Your task to perform on an android device: Open Yahoo.com Image 0: 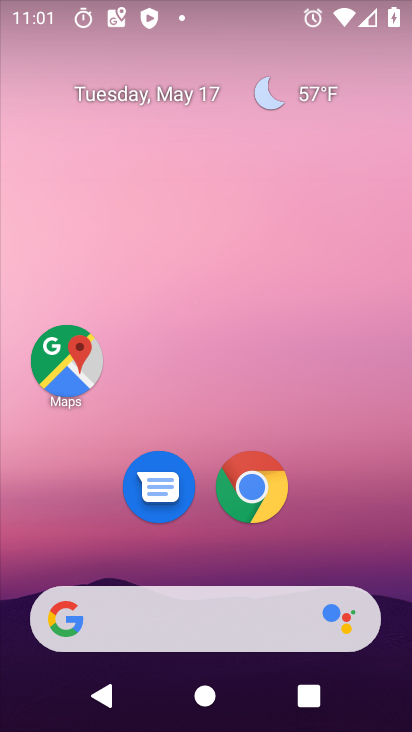
Step 0: click (250, 483)
Your task to perform on an android device: Open Yahoo.com Image 1: 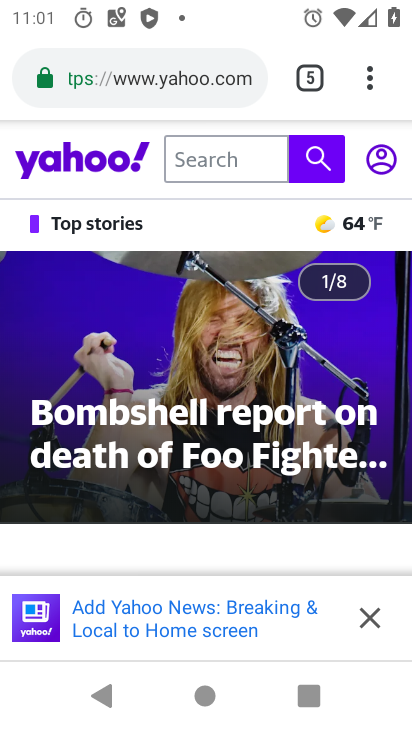
Step 1: task complete